Your task to perform on an android device: change the clock display to show seconds Image 0: 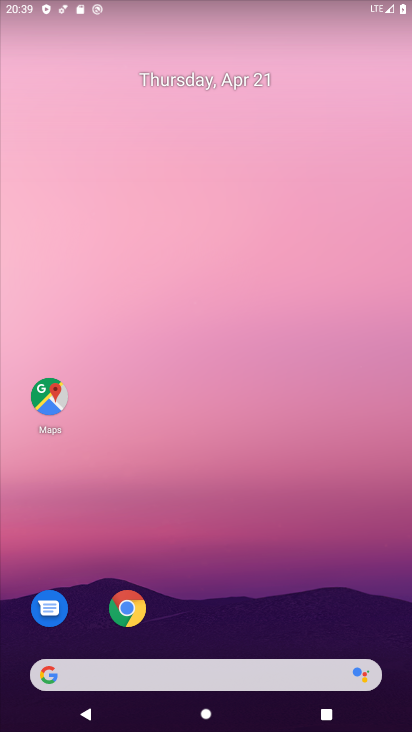
Step 0: drag from (243, 623) to (210, 241)
Your task to perform on an android device: change the clock display to show seconds Image 1: 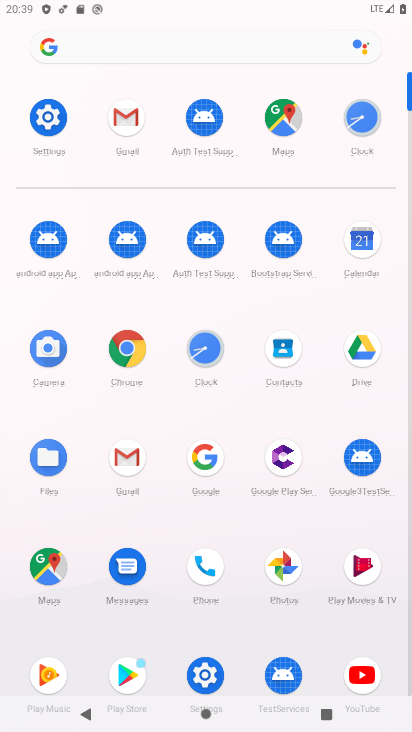
Step 1: click (365, 123)
Your task to perform on an android device: change the clock display to show seconds Image 2: 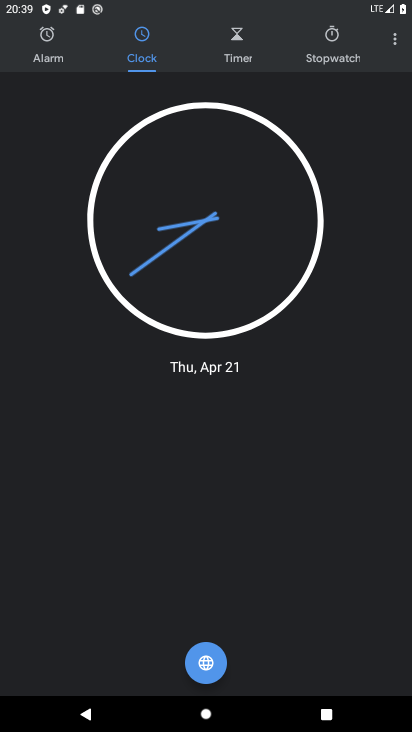
Step 2: click (395, 47)
Your task to perform on an android device: change the clock display to show seconds Image 3: 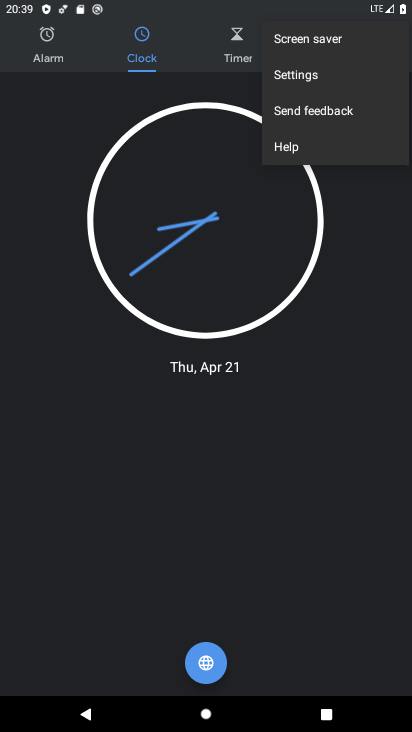
Step 3: click (346, 82)
Your task to perform on an android device: change the clock display to show seconds Image 4: 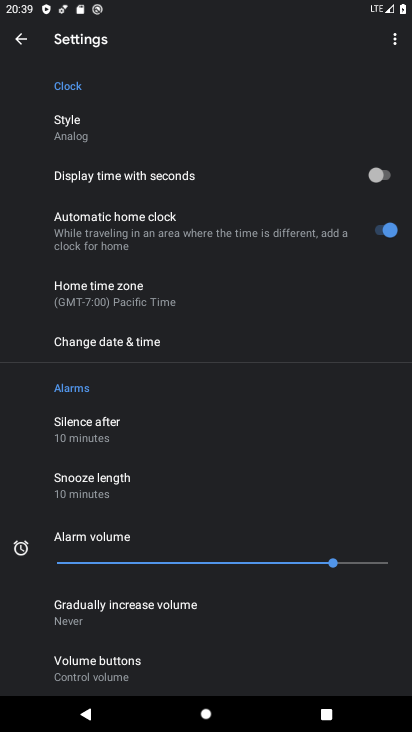
Step 4: click (383, 176)
Your task to perform on an android device: change the clock display to show seconds Image 5: 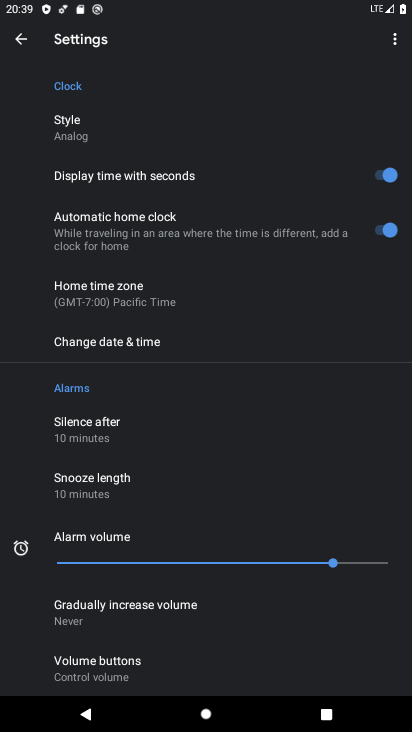
Step 5: task complete